Your task to perform on an android device: What's the latest news in tech? Image 0: 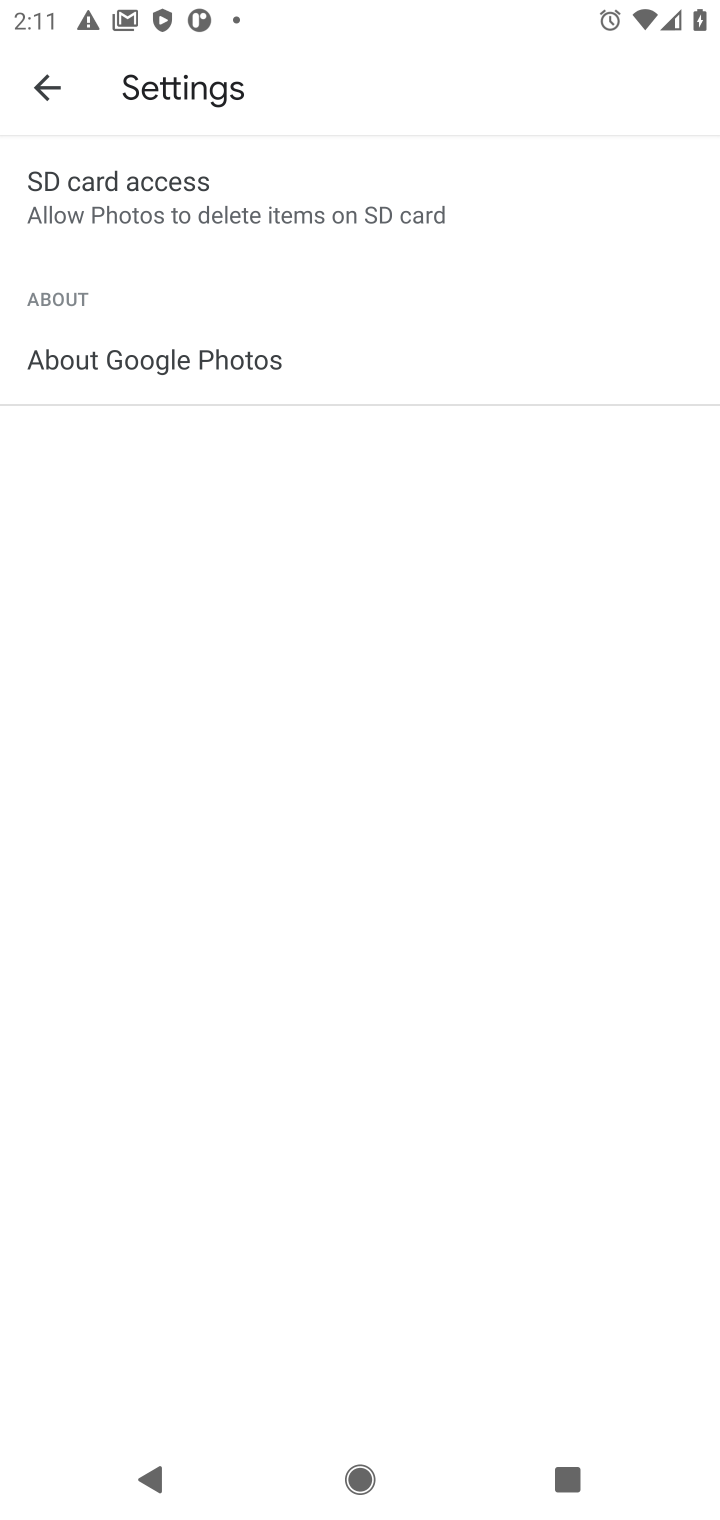
Step 0: press home button
Your task to perform on an android device: What's the latest news in tech? Image 1: 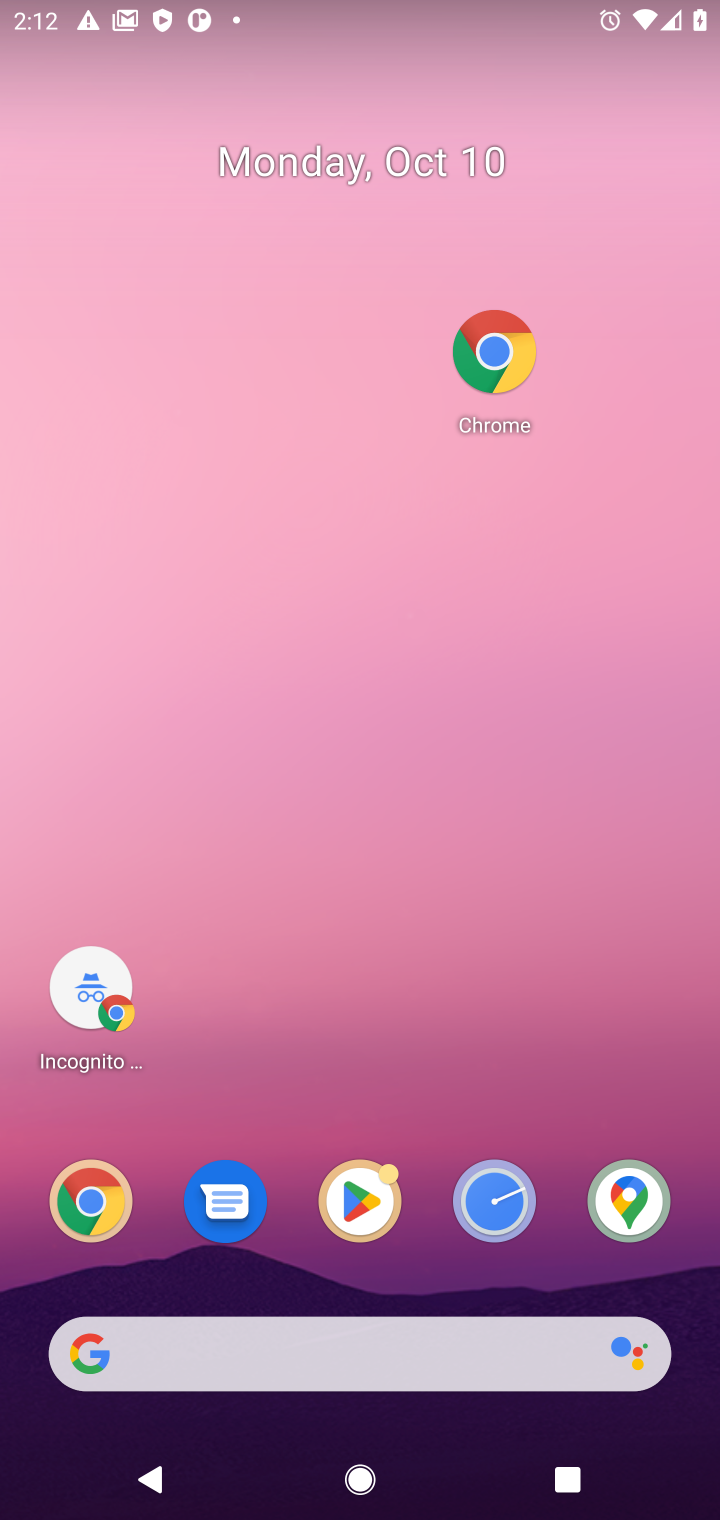
Step 1: click (485, 360)
Your task to perform on an android device: What's the latest news in tech? Image 2: 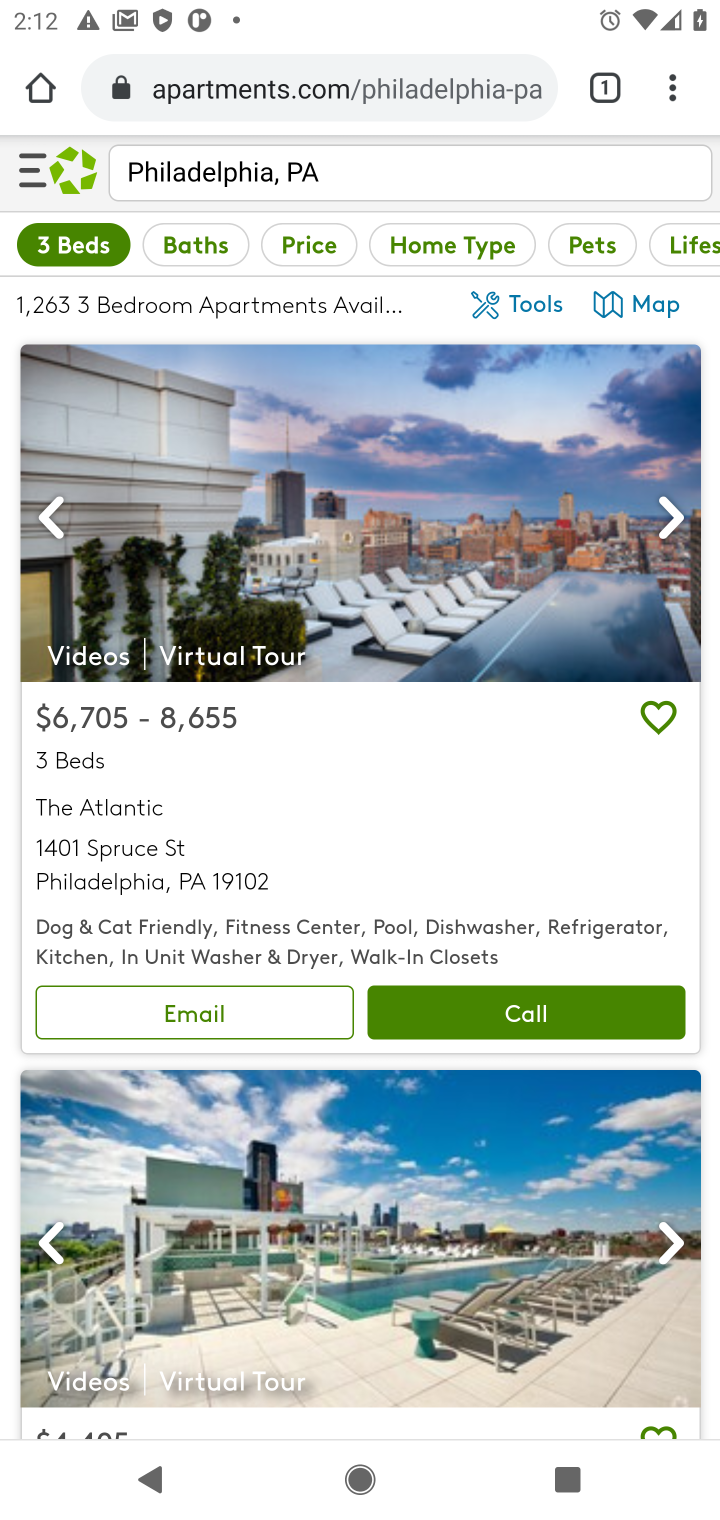
Step 2: click (403, 97)
Your task to perform on an android device: What's the latest news in tech? Image 3: 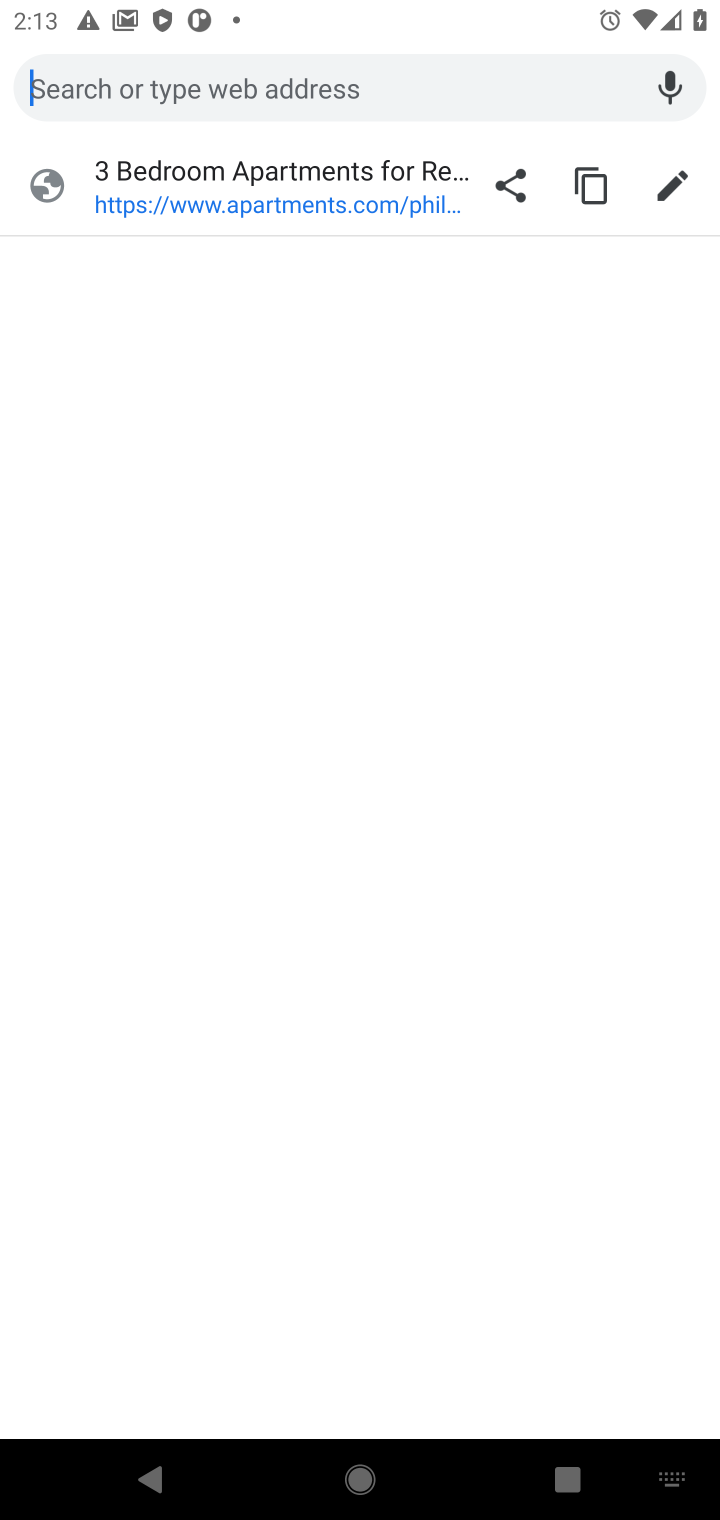
Step 3: type "latest news in tech"
Your task to perform on an android device: What's the latest news in tech? Image 4: 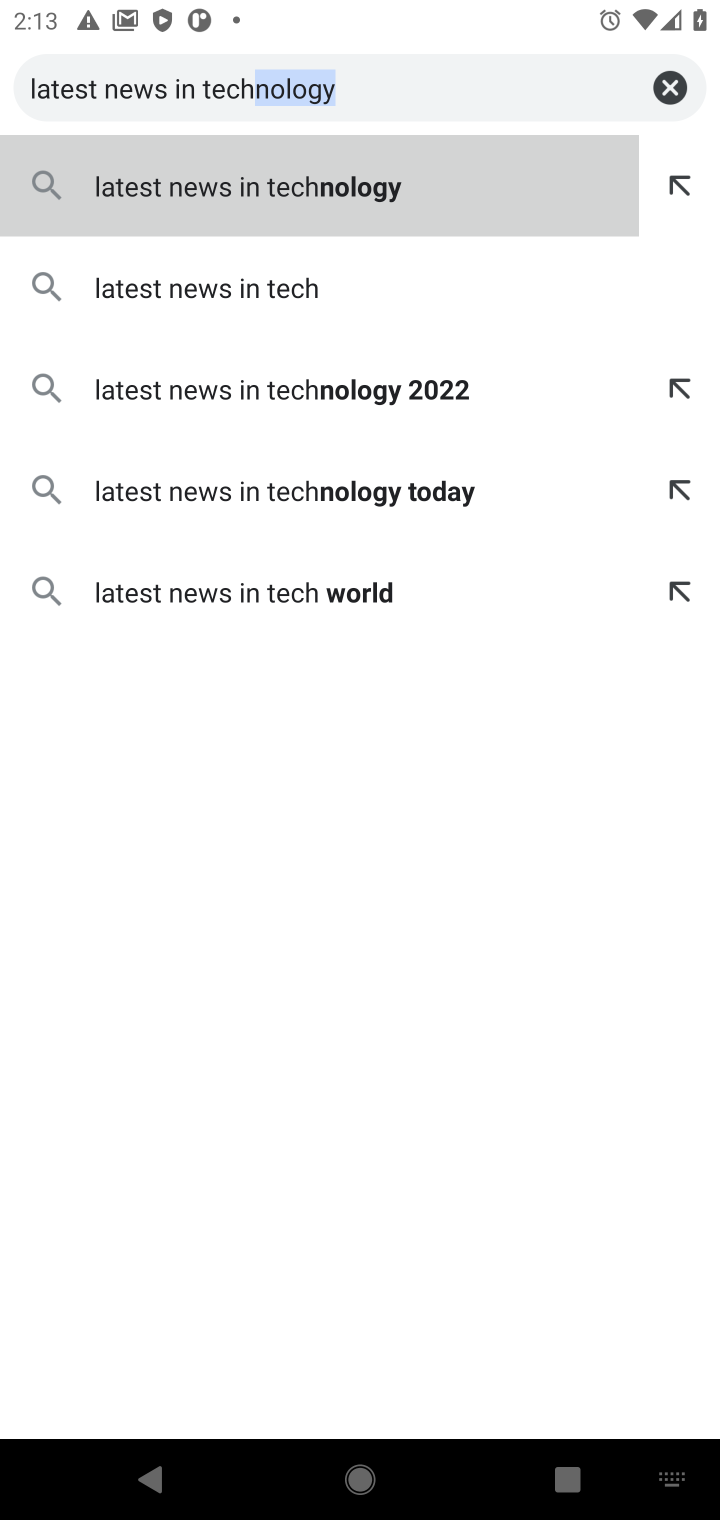
Step 4: click (236, 291)
Your task to perform on an android device: What's the latest news in tech? Image 5: 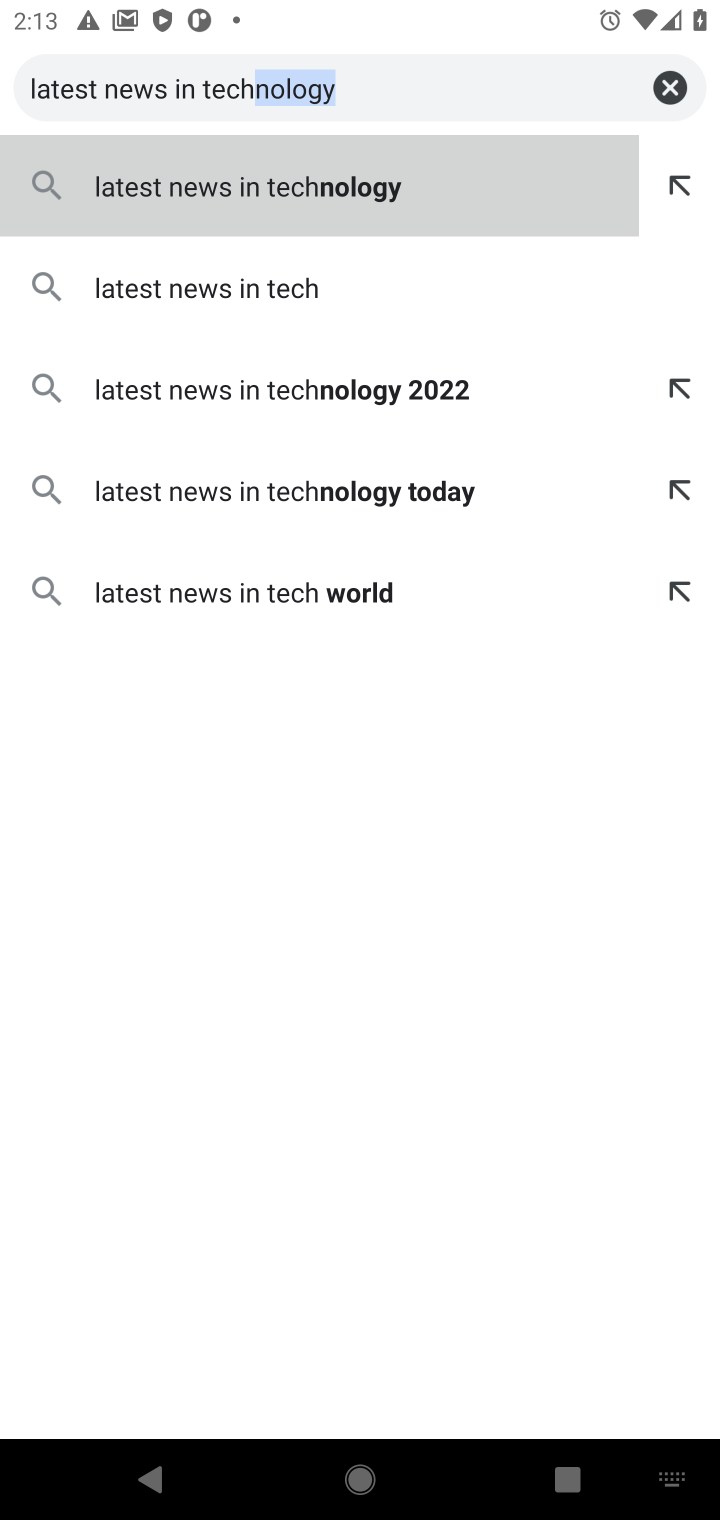
Step 5: click (171, 293)
Your task to perform on an android device: What's the latest news in tech? Image 6: 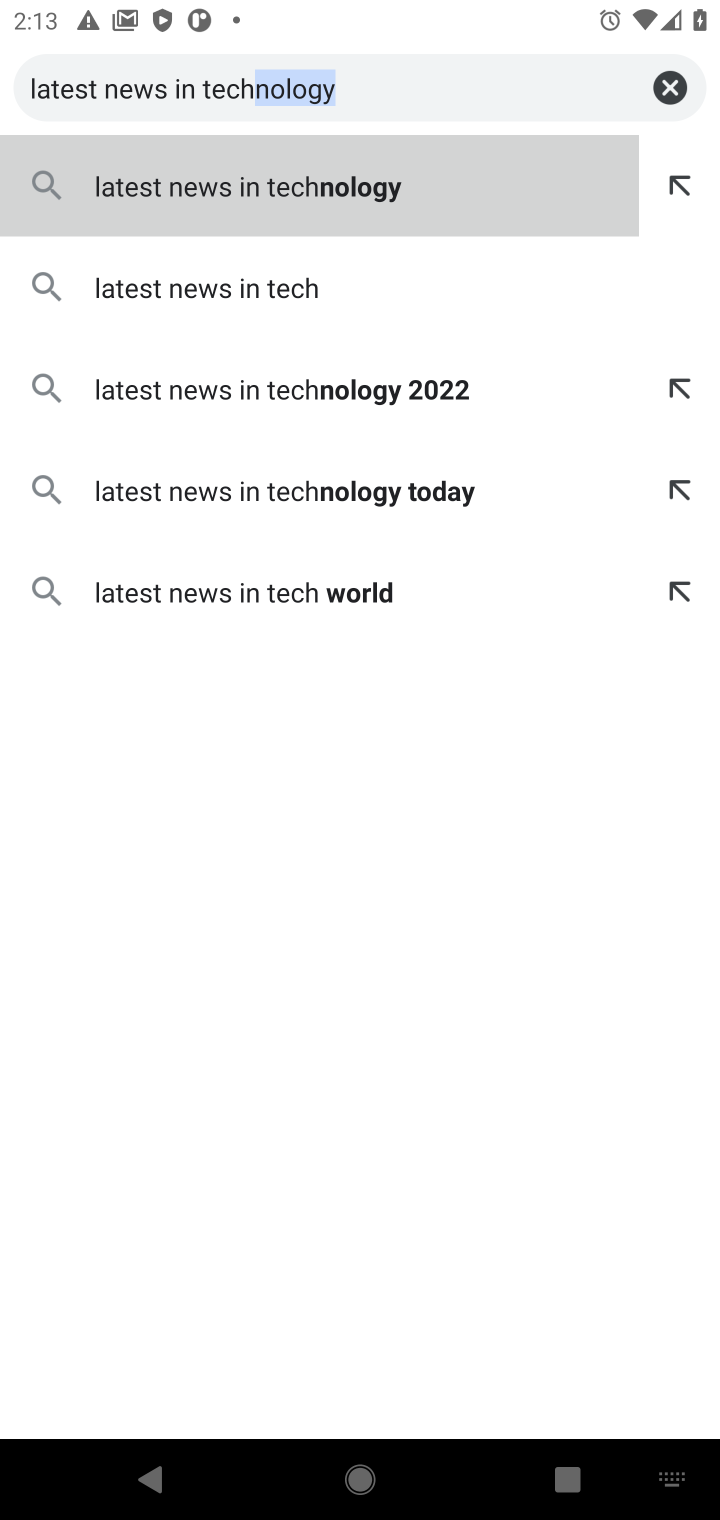
Step 6: click (156, 294)
Your task to perform on an android device: What's the latest news in tech? Image 7: 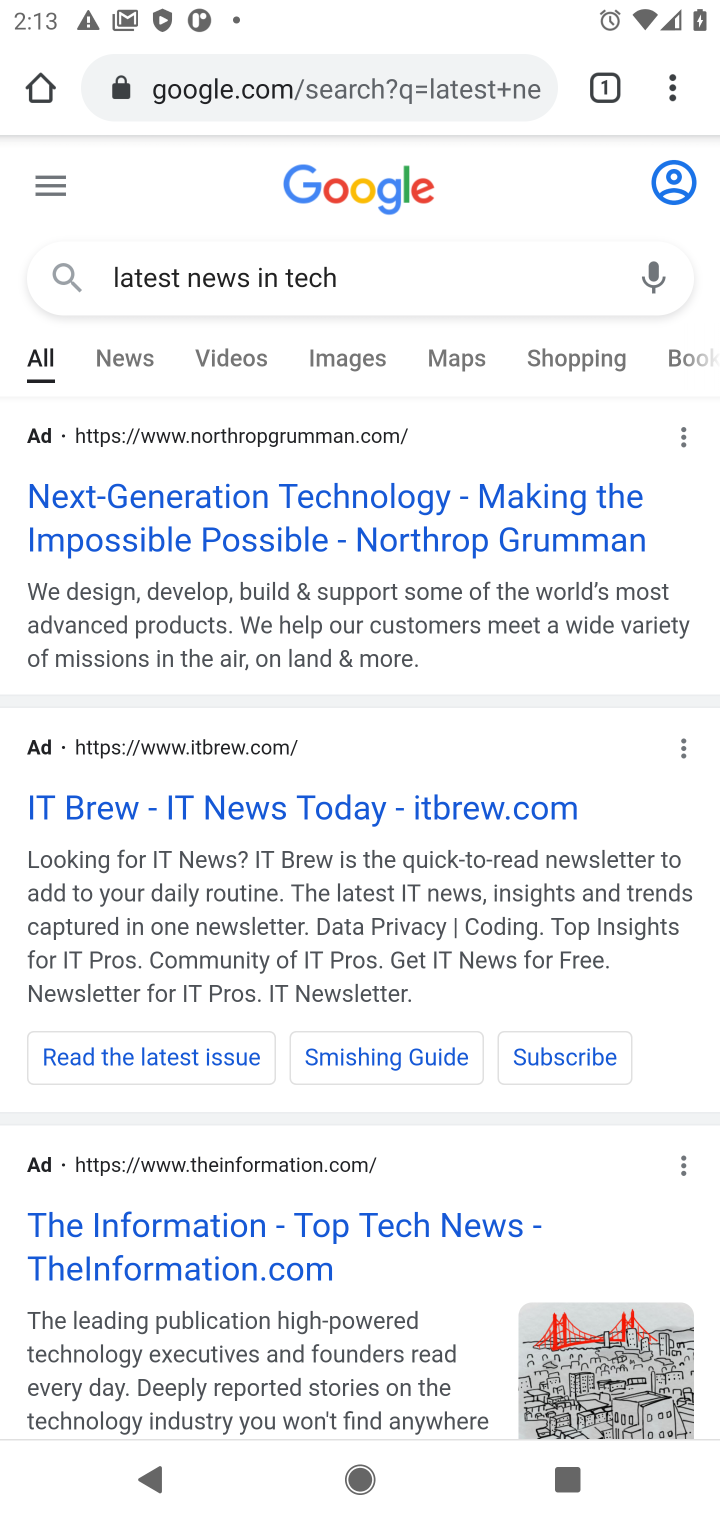
Step 7: click (114, 358)
Your task to perform on an android device: What's the latest news in tech? Image 8: 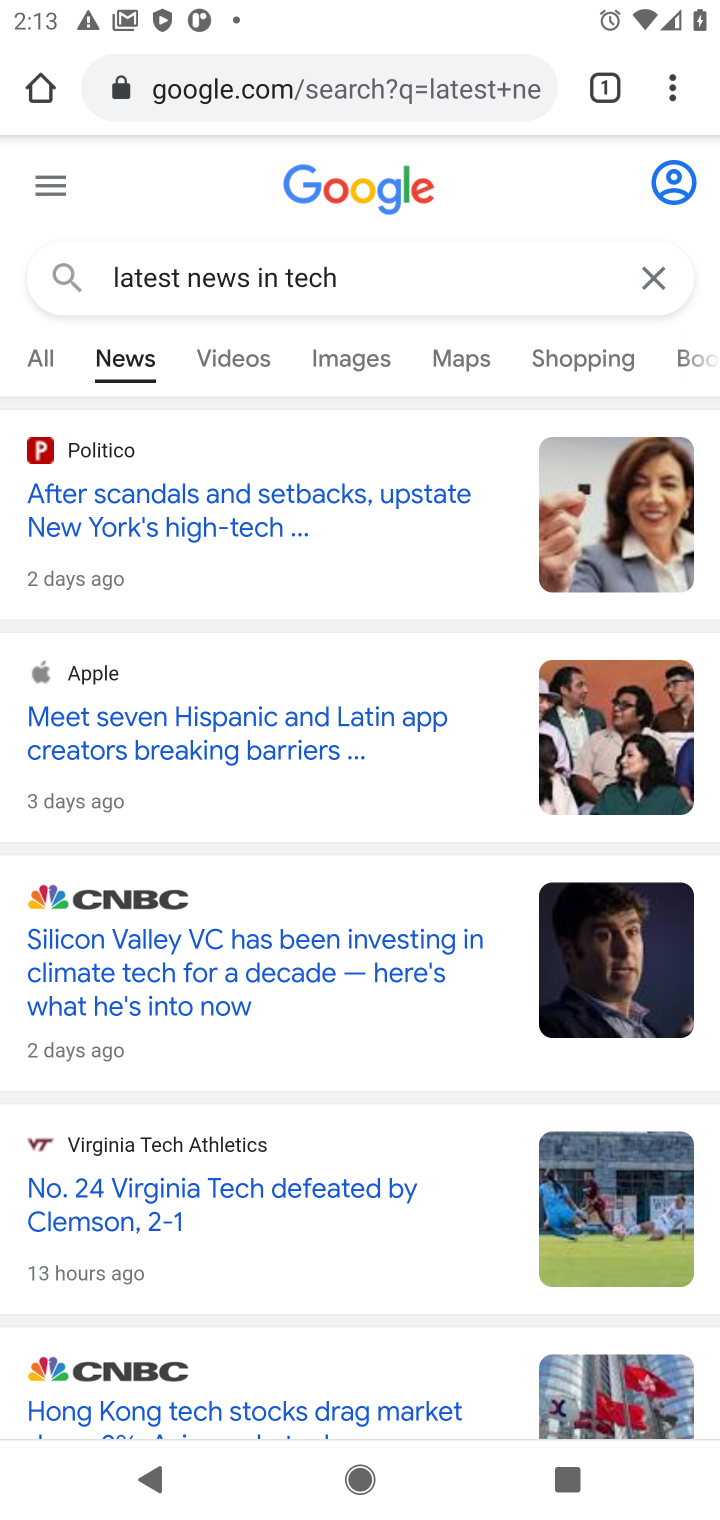
Step 8: click (176, 534)
Your task to perform on an android device: What's the latest news in tech? Image 9: 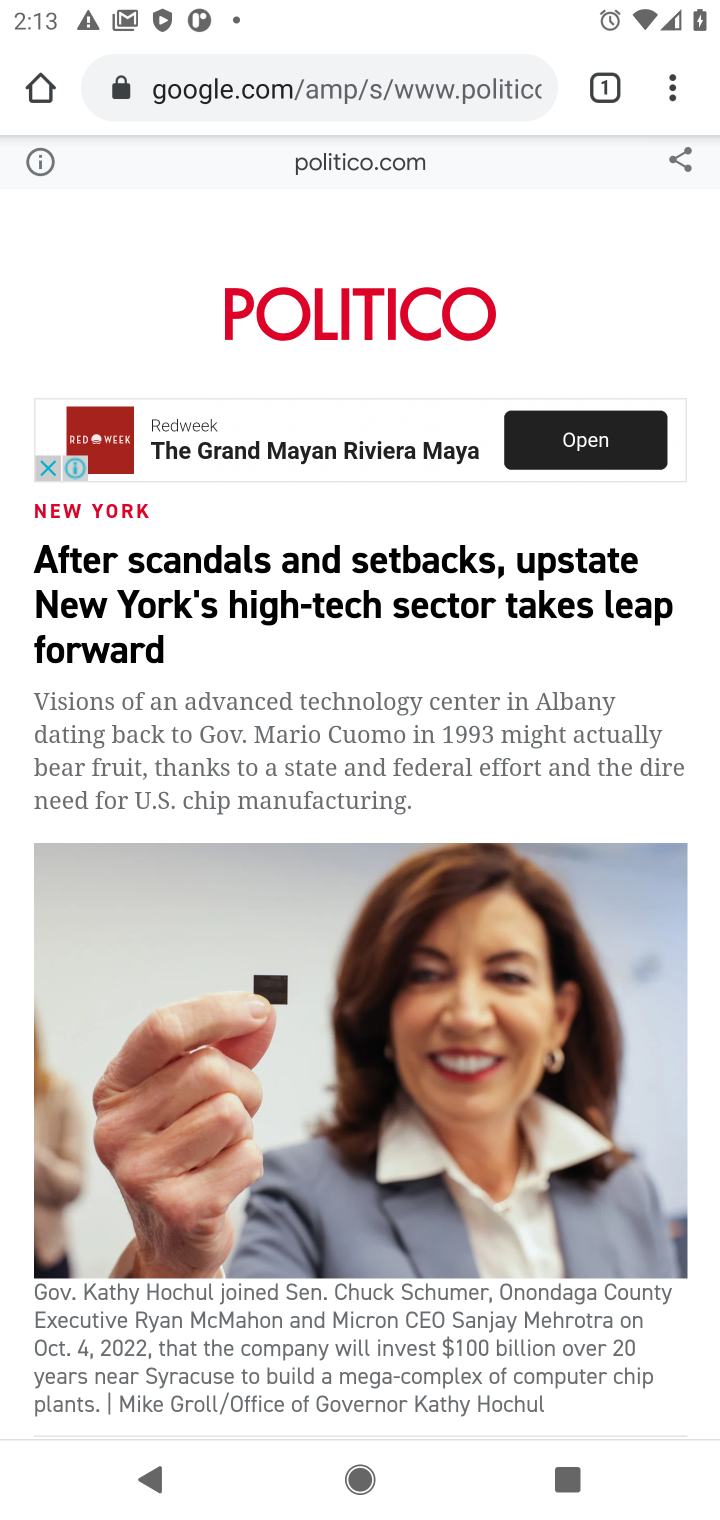
Step 9: task complete